Your task to perform on an android device: Open Google Image 0: 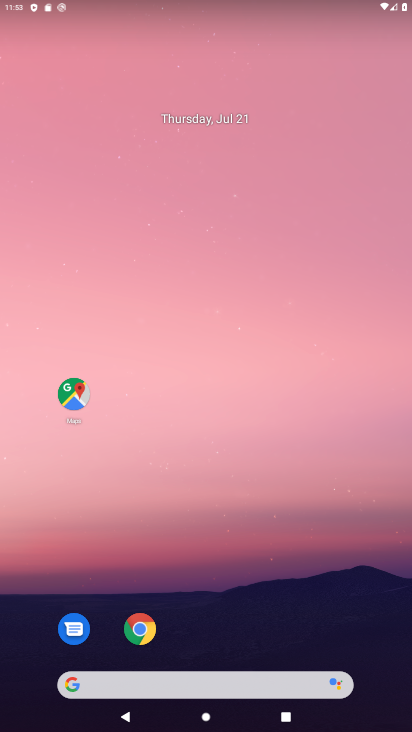
Step 0: drag from (152, 696) to (133, 131)
Your task to perform on an android device: Open Google Image 1: 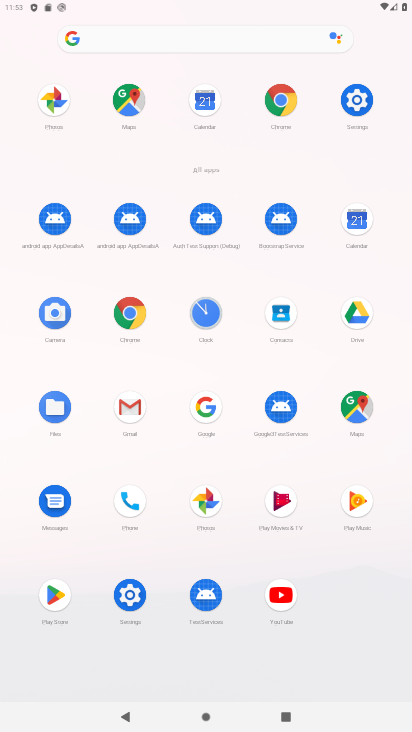
Step 1: click (143, 312)
Your task to perform on an android device: Open Google Image 2: 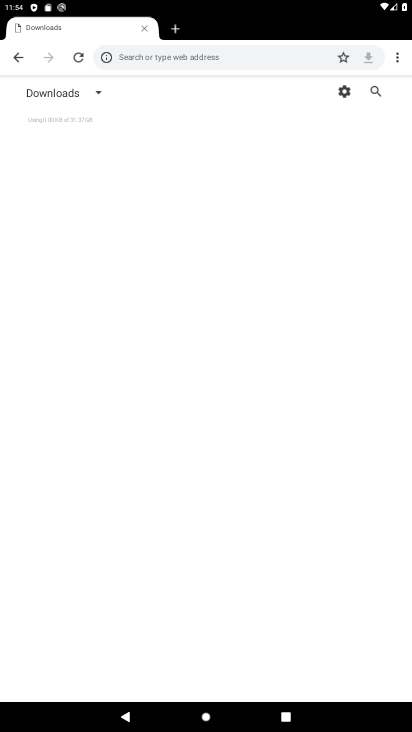
Step 2: press home button
Your task to perform on an android device: Open Google Image 3: 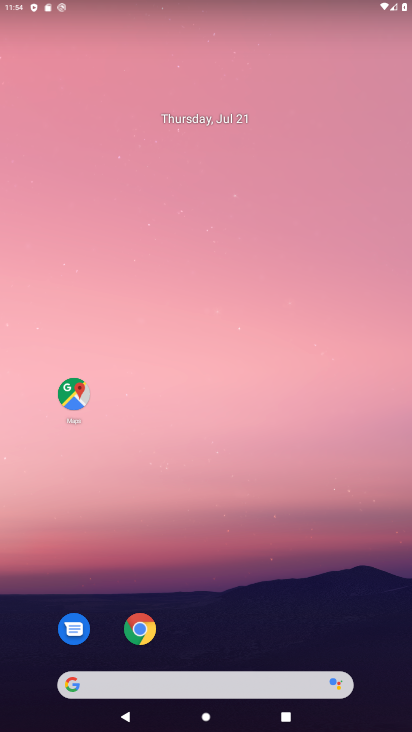
Step 3: drag from (178, 636) to (294, 16)
Your task to perform on an android device: Open Google Image 4: 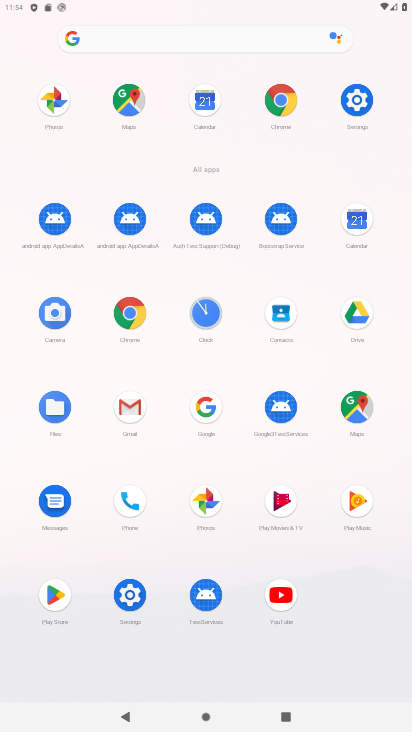
Step 4: click (209, 399)
Your task to perform on an android device: Open Google Image 5: 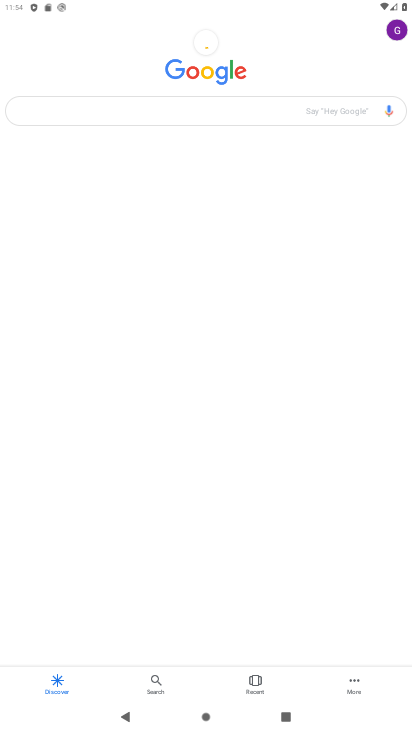
Step 5: task complete